Your task to perform on an android device: Open display settings Image 0: 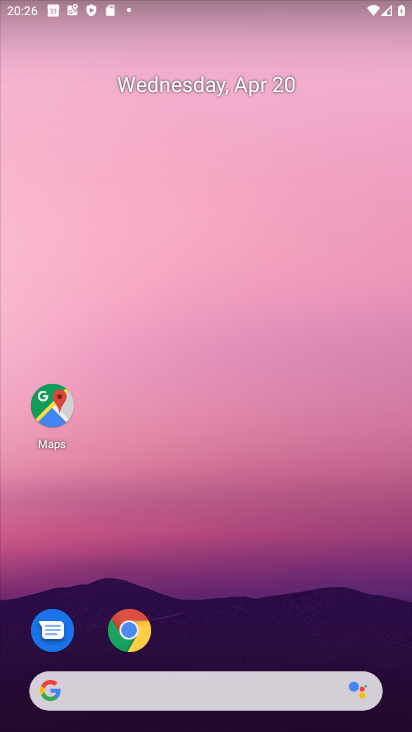
Step 0: drag from (246, 541) to (209, 186)
Your task to perform on an android device: Open display settings Image 1: 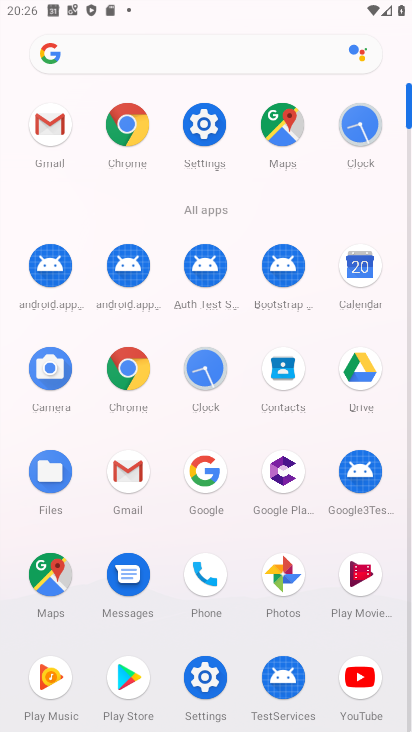
Step 1: click (200, 131)
Your task to perform on an android device: Open display settings Image 2: 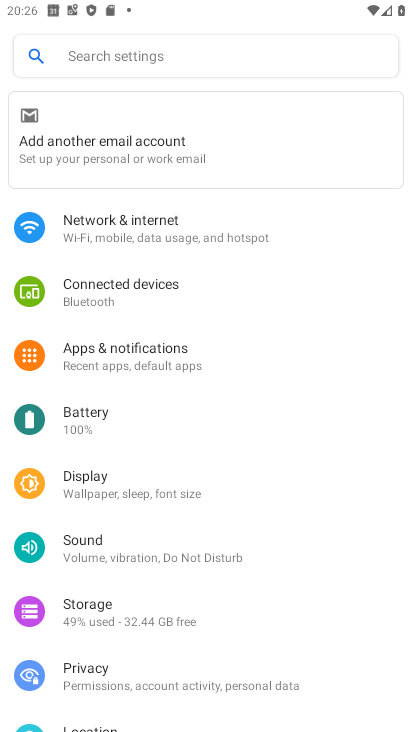
Step 2: click (87, 476)
Your task to perform on an android device: Open display settings Image 3: 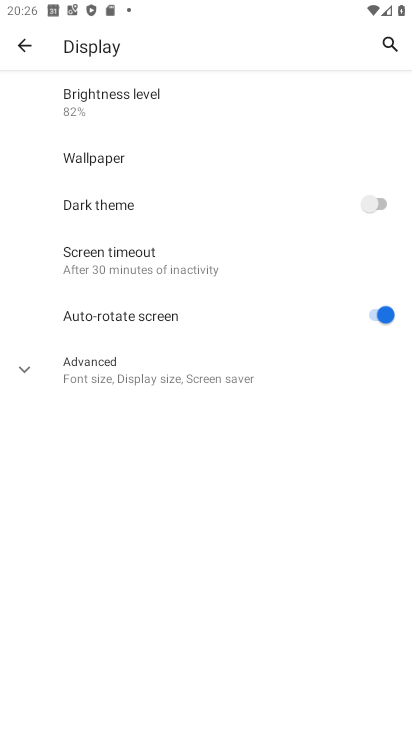
Step 3: task complete